Your task to perform on an android device: Find coffee shops on Maps Image 0: 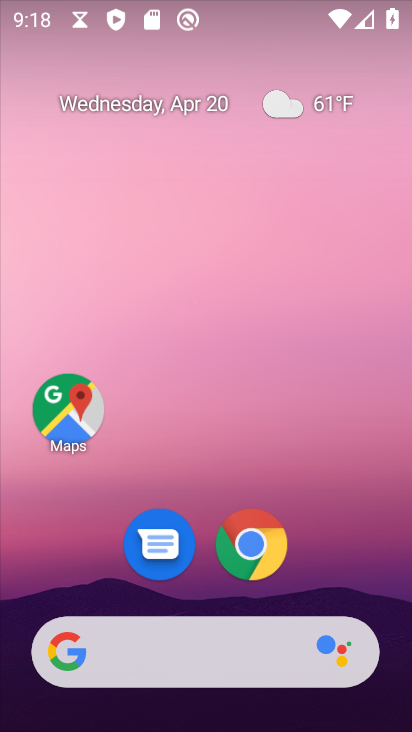
Step 0: drag from (210, 663) to (329, 164)
Your task to perform on an android device: Find coffee shops on Maps Image 1: 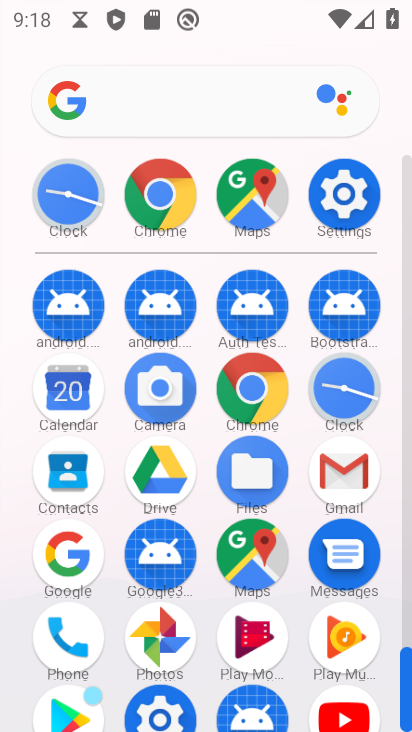
Step 1: click (255, 209)
Your task to perform on an android device: Find coffee shops on Maps Image 2: 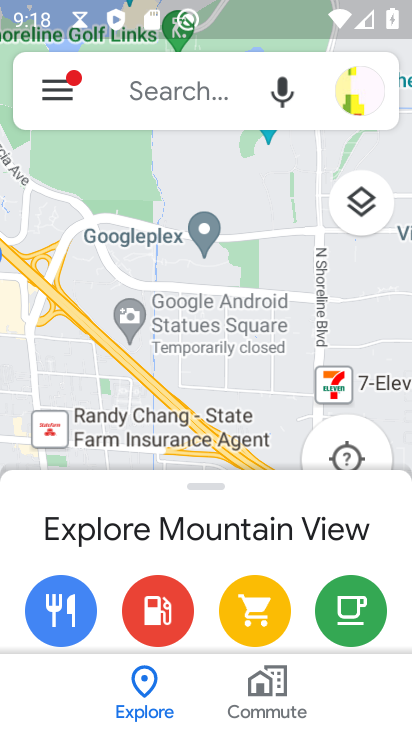
Step 2: click (194, 103)
Your task to perform on an android device: Find coffee shops on Maps Image 3: 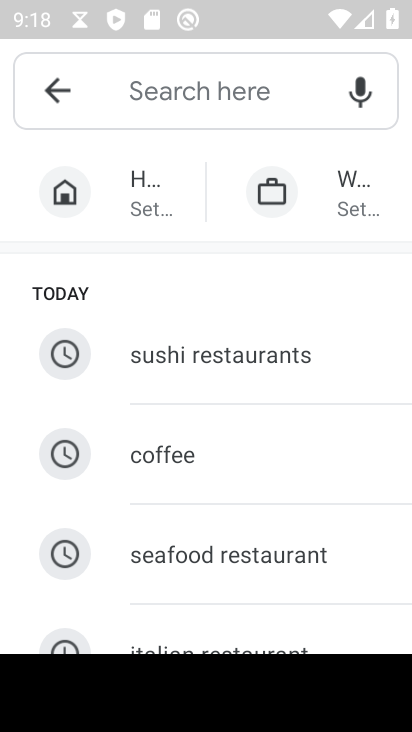
Step 3: click (144, 462)
Your task to perform on an android device: Find coffee shops on Maps Image 4: 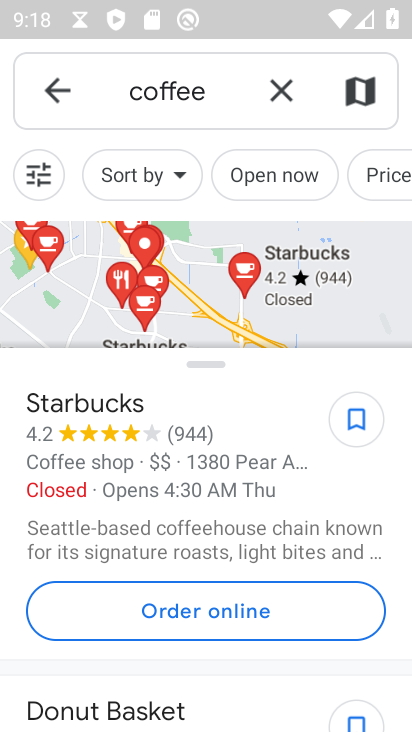
Step 4: task complete